Your task to perform on an android device: Open calendar and show me the second week of next month Image 0: 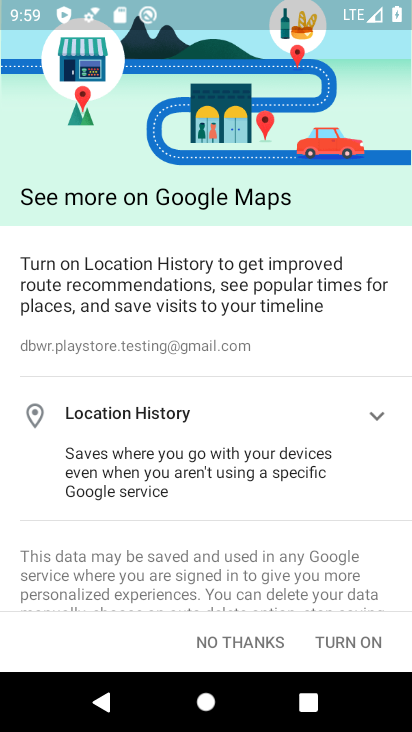
Step 0: press home button
Your task to perform on an android device: Open calendar and show me the second week of next month Image 1: 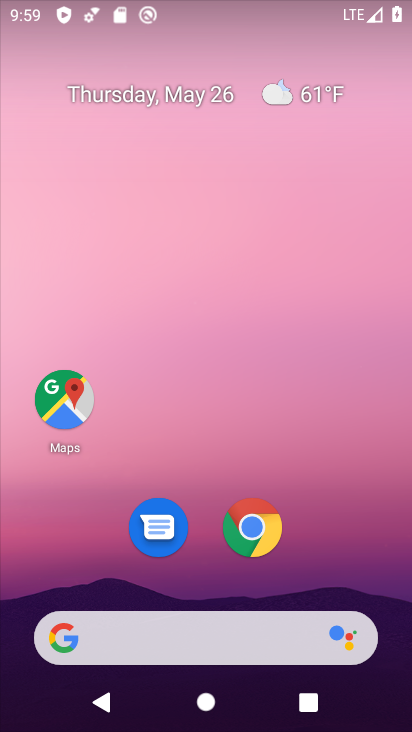
Step 1: drag from (201, 590) to (269, 6)
Your task to perform on an android device: Open calendar and show me the second week of next month Image 2: 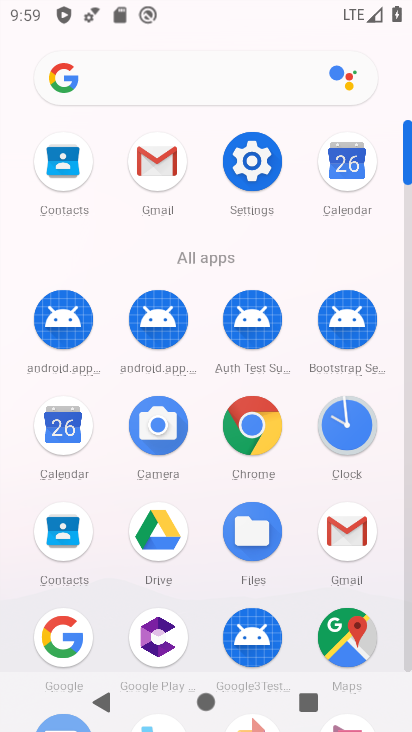
Step 2: click (54, 443)
Your task to perform on an android device: Open calendar and show me the second week of next month Image 3: 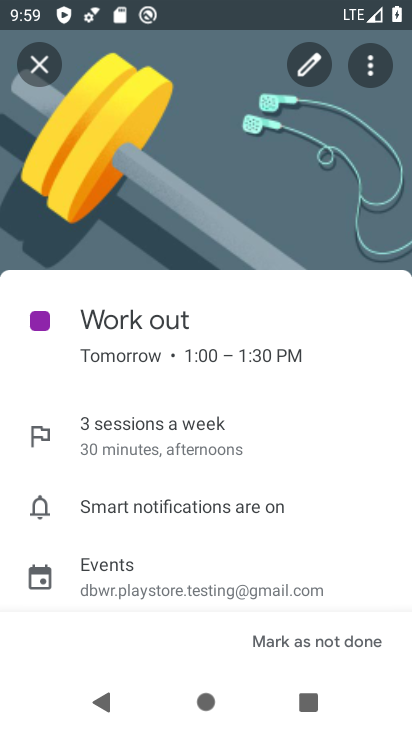
Step 3: click (19, 51)
Your task to perform on an android device: Open calendar and show me the second week of next month Image 4: 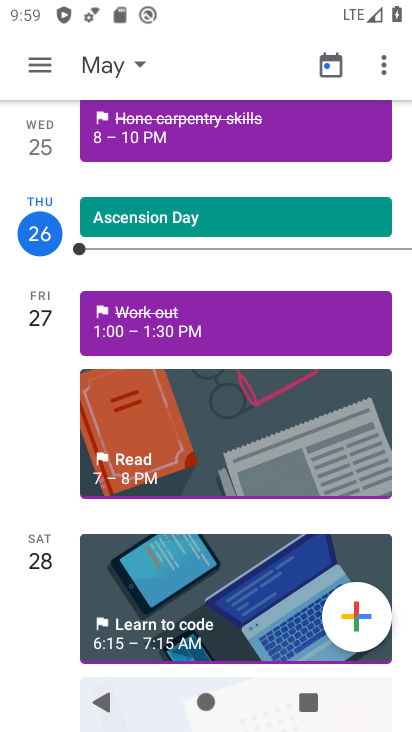
Step 4: click (125, 71)
Your task to perform on an android device: Open calendar and show me the second week of next month Image 5: 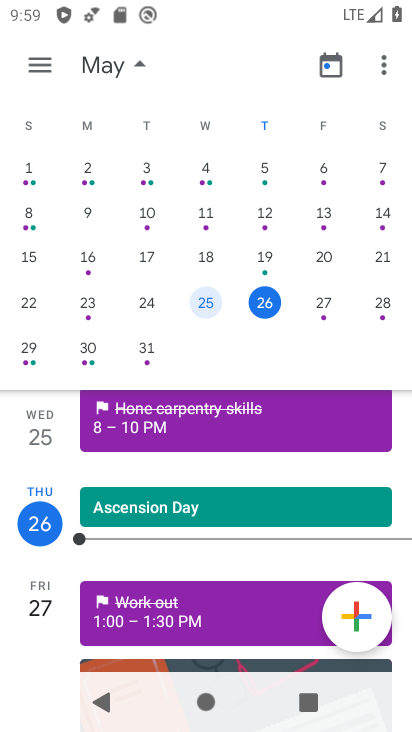
Step 5: drag from (349, 240) to (1, 213)
Your task to perform on an android device: Open calendar and show me the second week of next month Image 6: 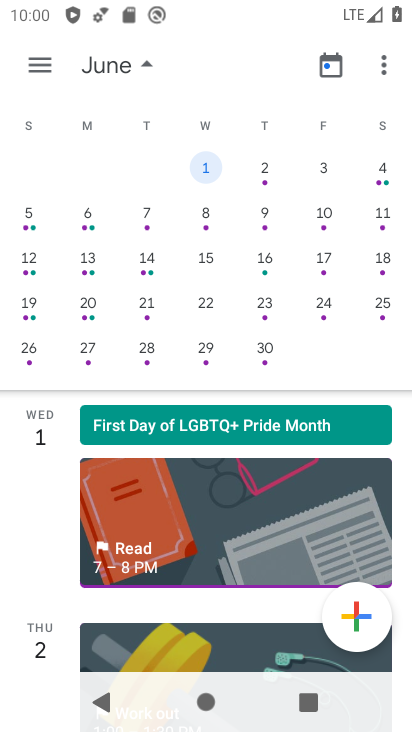
Step 6: click (91, 209)
Your task to perform on an android device: Open calendar and show me the second week of next month Image 7: 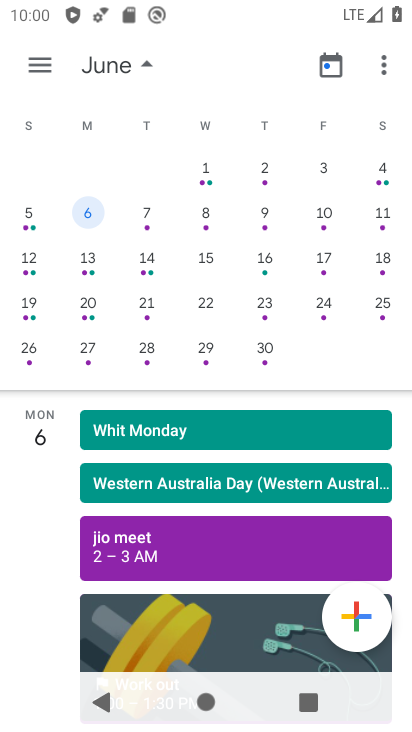
Step 7: task complete